Your task to perform on an android device: Go to notification settings Image 0: 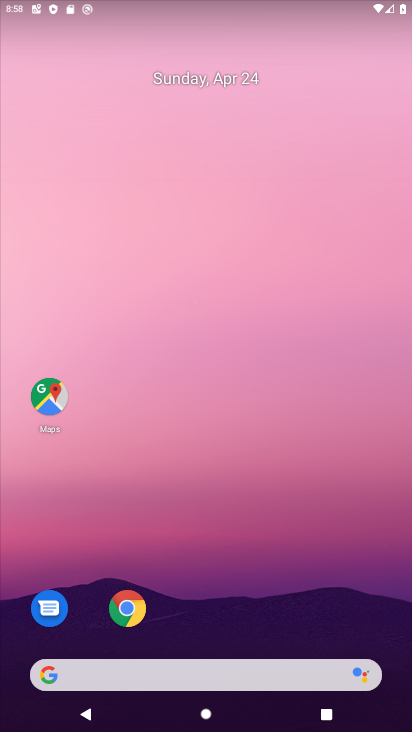
Step 0: press home button
Your task to perform on an android device: Go to notification settings Image 1: 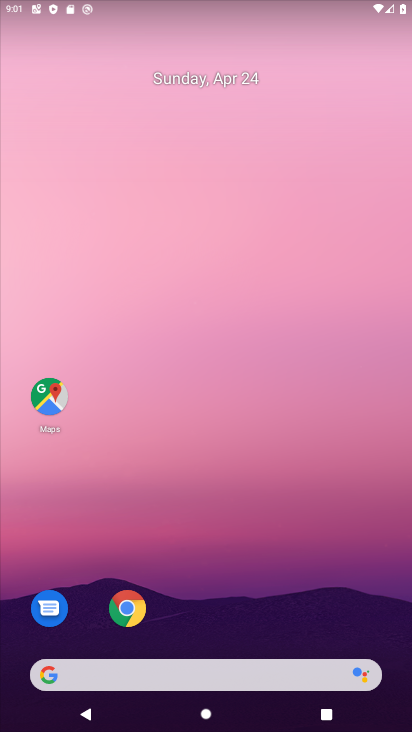
Step 1: drag from (273, 702) to (247, 202)
Your task to perform on an android device: Go to notification settings Image 2: 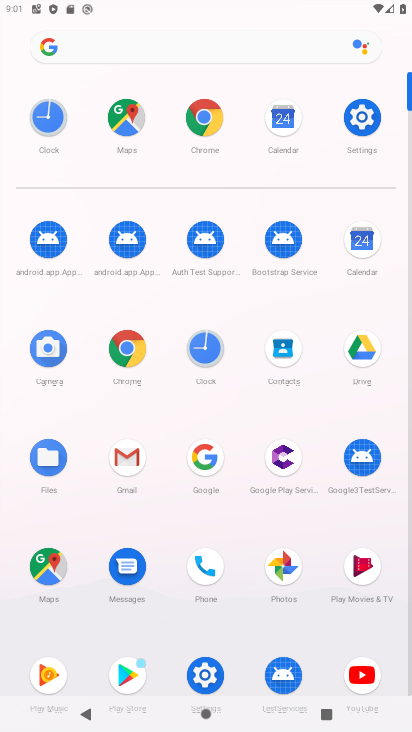
Step 2: click (350, 127)
Your task to perform on an android device: Go to notification settings Image 3: 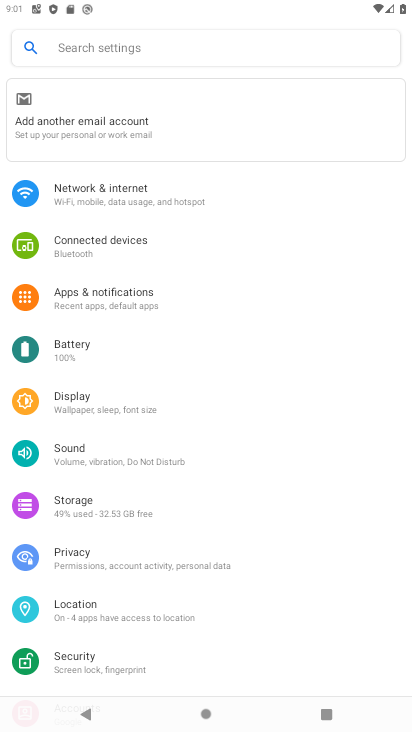
Step 3: click (92, 38)
Your task to perform on an android device: Go to notification settings Image 4: 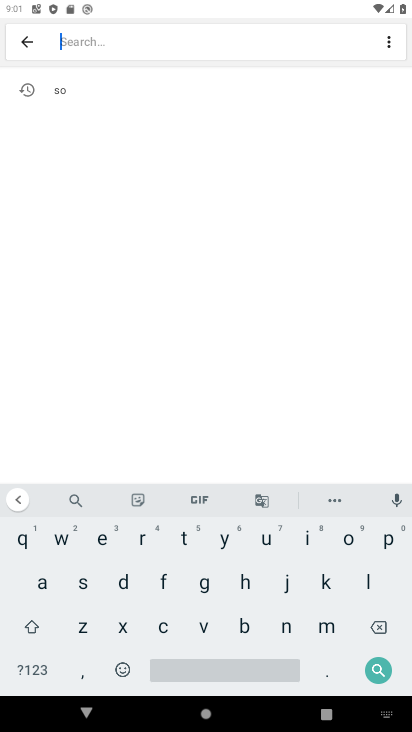
Step 4: click (283, 622)
Your task to perform on an android device: Go to notification settings Image 5: 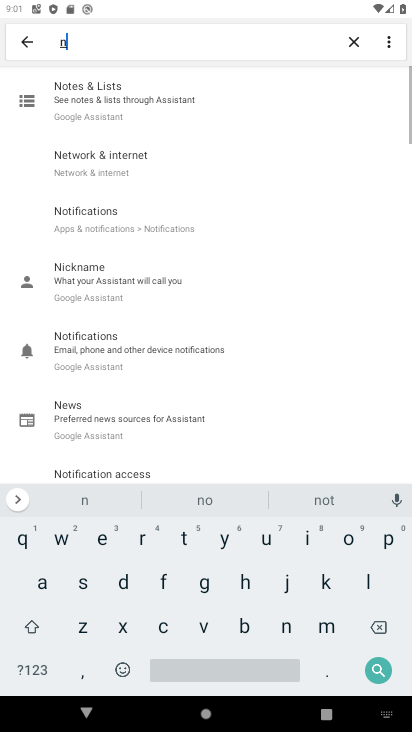
Step 5: click (351, 537)
Your task to perform on an android device: Go to notification settings Image 6: 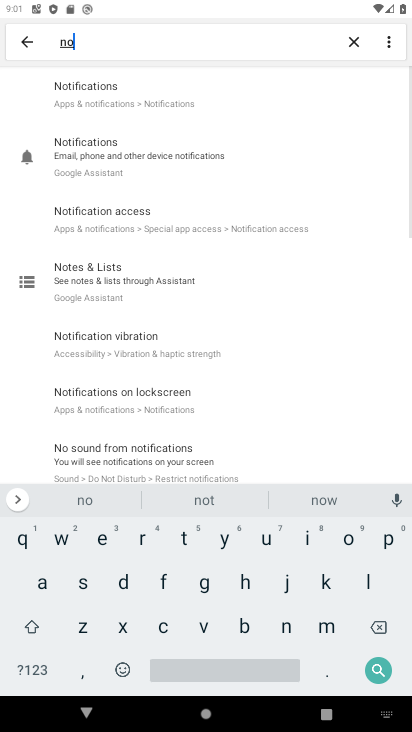
Step 6: click (135, 93)
Your task to perform on an android device: Go to notification settings Image 7: 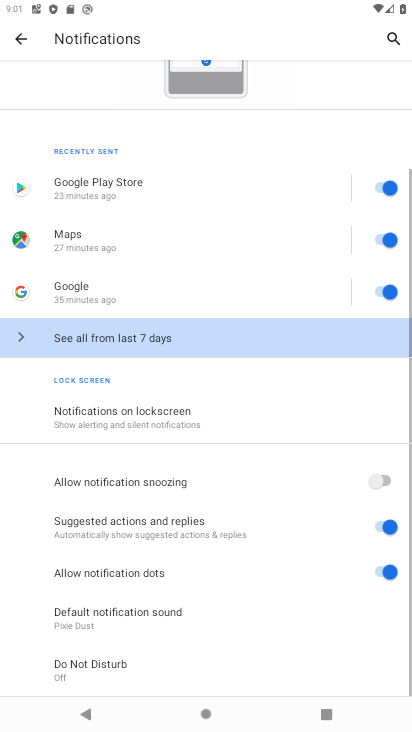
Step 7: task complete